Your task to perform on an android device: What's the weather? Image 0: 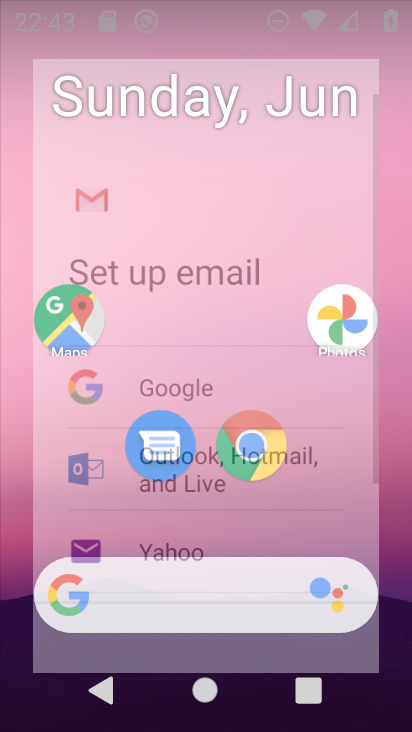
Step 0: press home button
Your task to perform on an android device: What's the weather? Image 1: 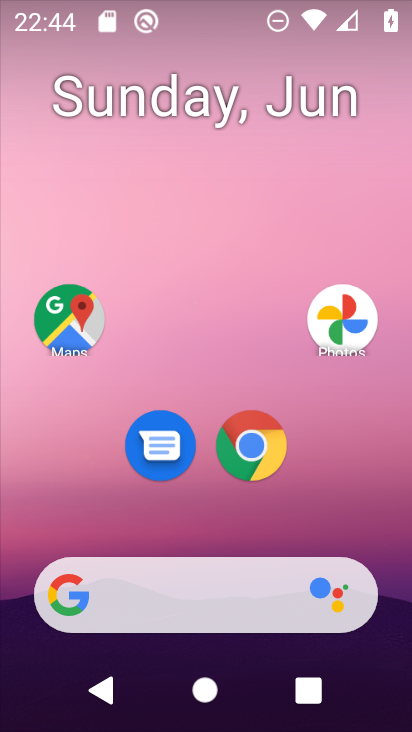
Step 1: click (63, 601)
Your task to perform on an android device: What's the weather? Image 2: 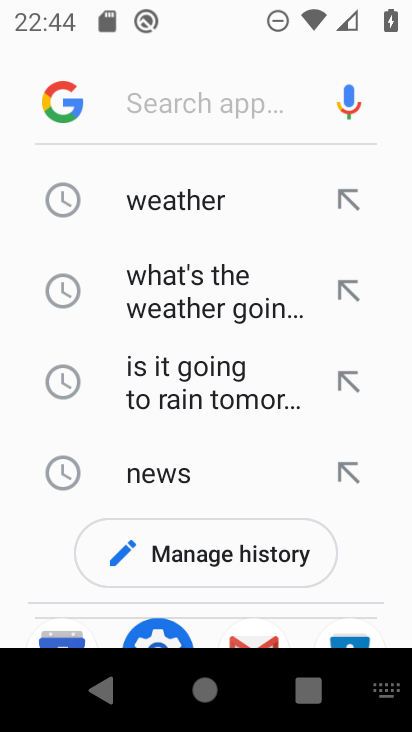
Step 2: click (158, 200)
Your task to perform on an android device: What's the weather? Image 3: 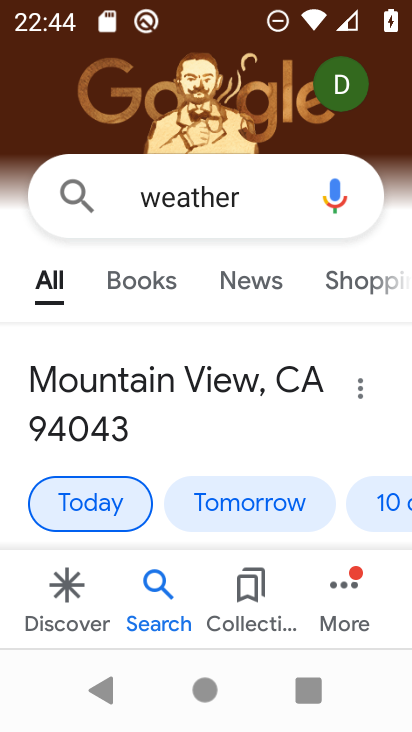
Step 3: task complete